Your task to perform on an android device: Check the news Image 0: 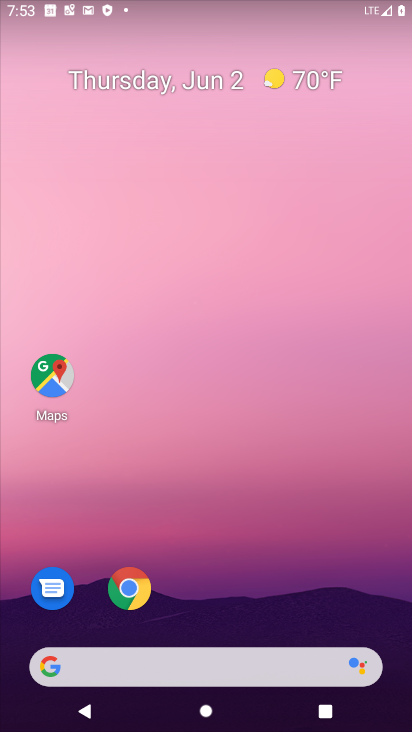
Step 0: click (221, 663)
Your task to perform on an android device: Check the news Image 1: 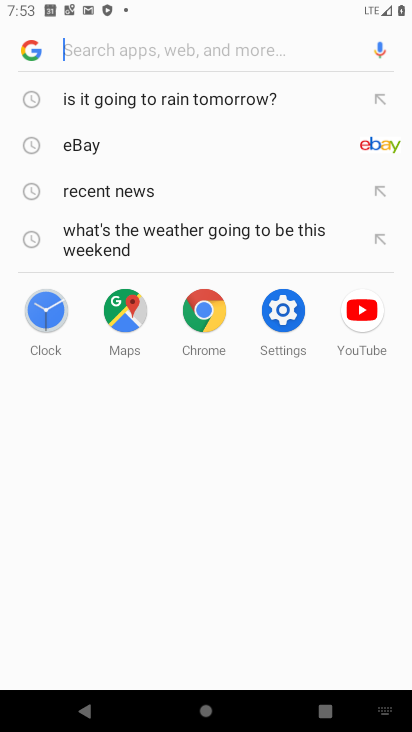
Step 1: type "news"
Your task to perform on an android device: Check the news Image 2: 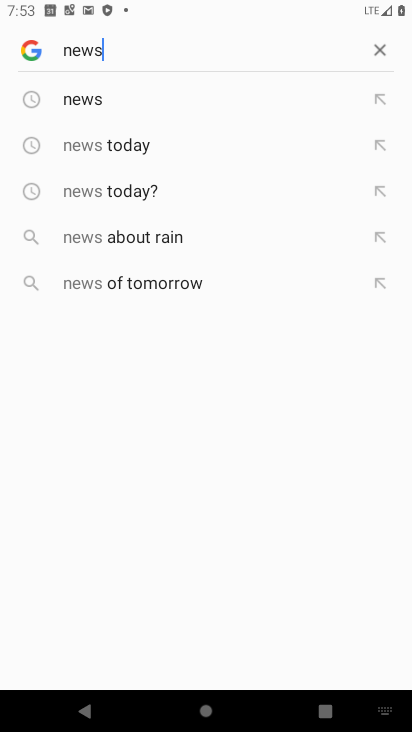
Step 2: click (85, 95)
Your task to perform on an android device: Check the news Image 3: 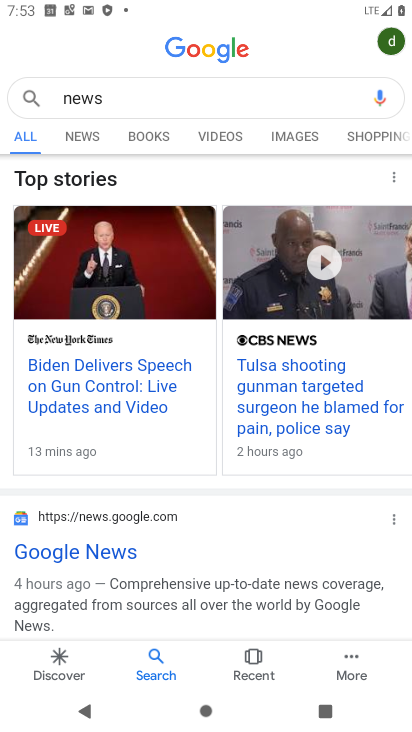
Step 3: task complete